Your task to perform on an android device: Check the weather Image 0: 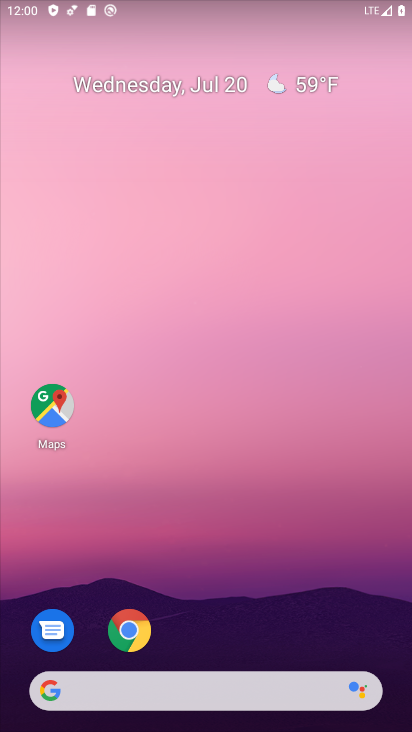
Step 0: drag from (211, 666) to (200, 194)
Your task to perform on an android device: Check the weather Image 1: 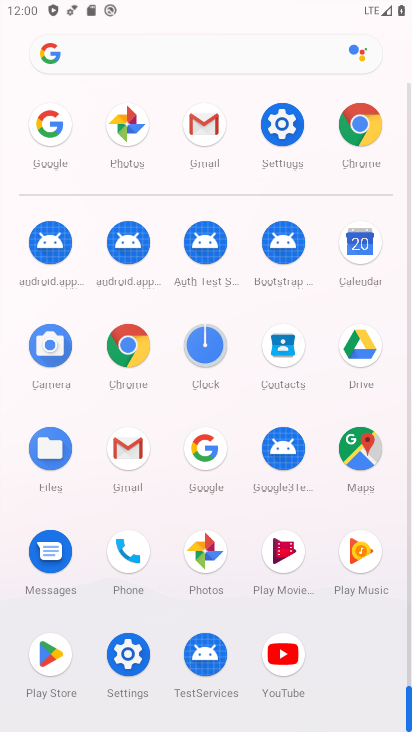
Step 1: drag from (193, 567) to (191, 289)
Your task to perform on an android device: Check the weather Image 2: 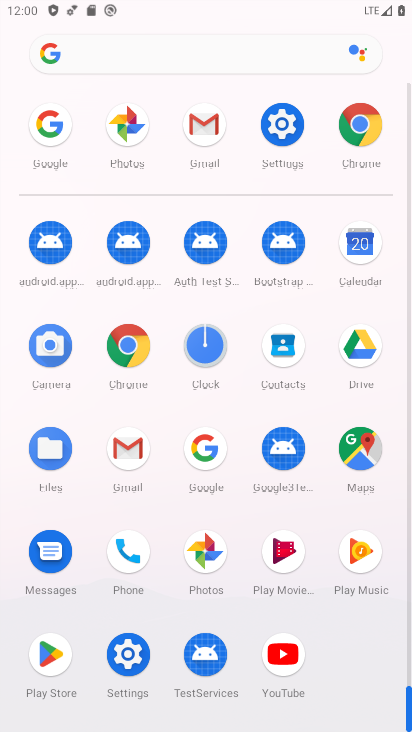
Step 2: click (216, 471)
Your task to perform on an android device: Check the weather Image 3: 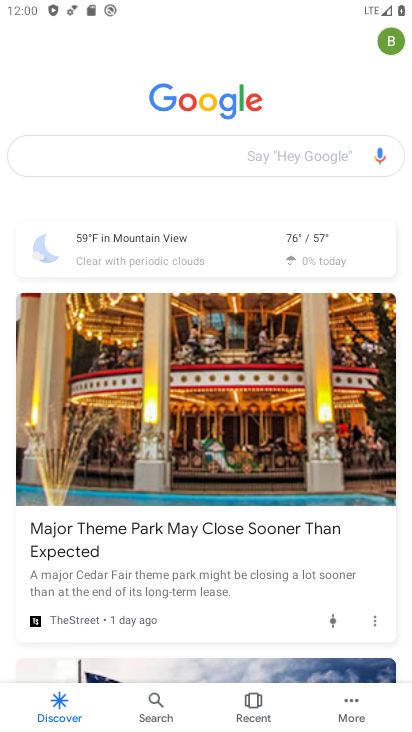
Step 3: click (229, 149)
Your task to perform on an android device: Check the weather Image 4: 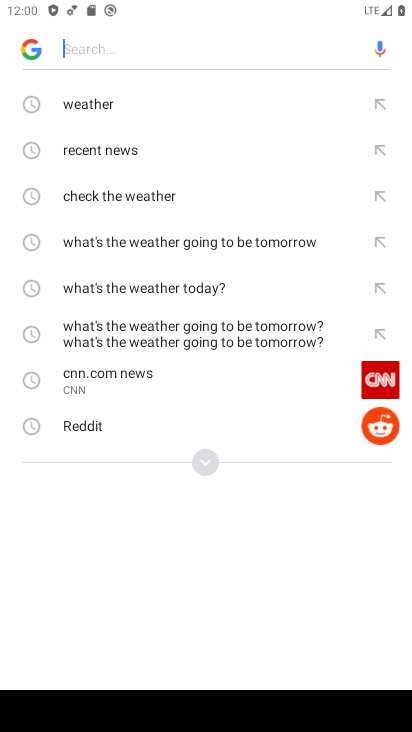
Step 4: click (176, 106)
Your task to perform on an android device: Check the weather Image 5: 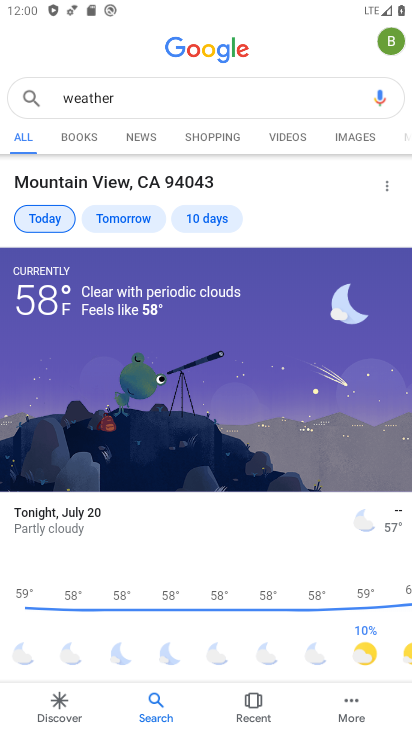
Step 5: task complete